Your task to perform on an android device: What's on my calendar tomorrow? Image 0: 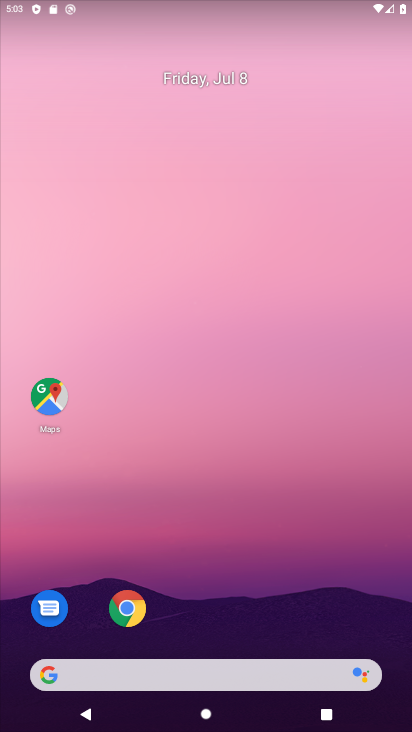
Step 0: drag from (275, 525) to (316, 178)
Your task to perform on an android device: What's on my calendar tomorrow? Image 1: 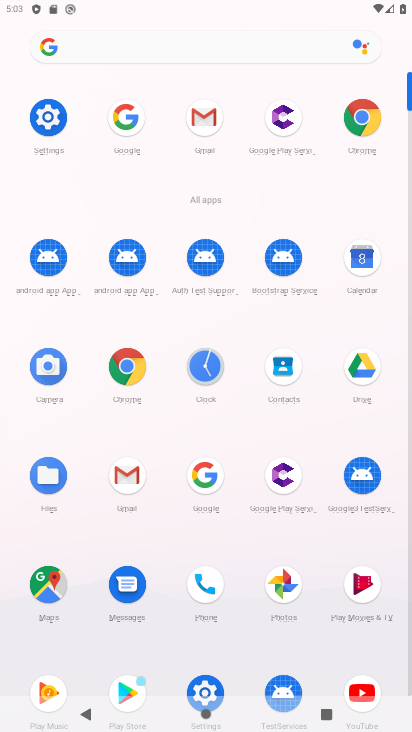
Step 1: click (362, 265)
Your task to perform on an android device: What's on my calendar tomorrow? Image 2: 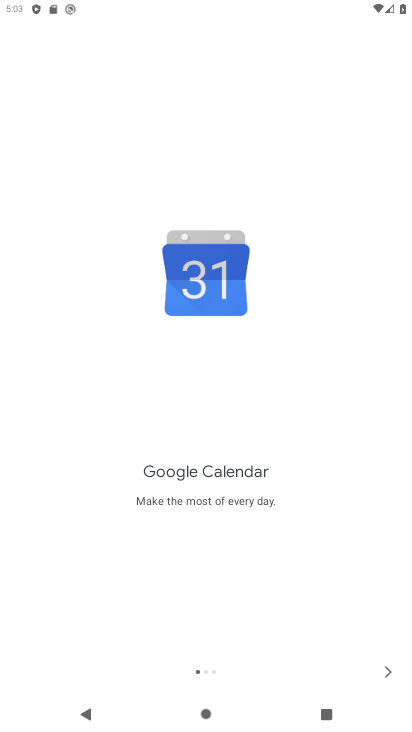
Step 2: click (393, 671)
Your task to perform on an android device: What's on my calendar tomorrow? Image 3: 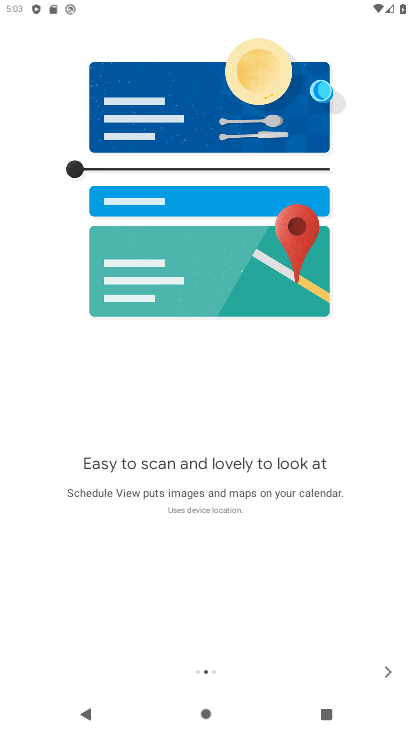
Step 3: click (393, 671)
Your task to perform on an android device: What's on my calendar tomorrow? Image 4: 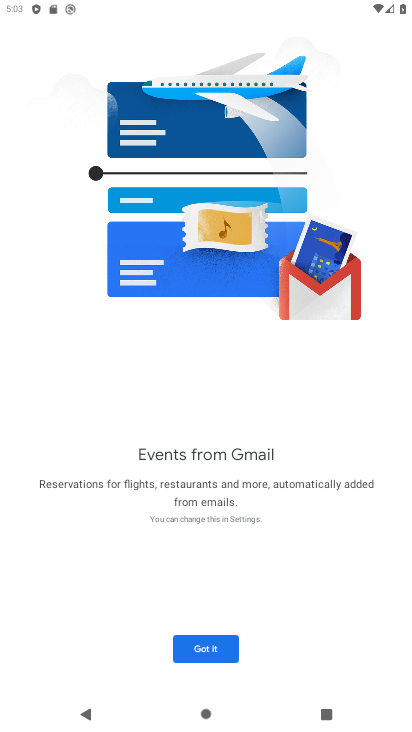
Step 4: click (213, 656)
Your task to perform on an android device: What's on my calendar tomorrow? Image 5: 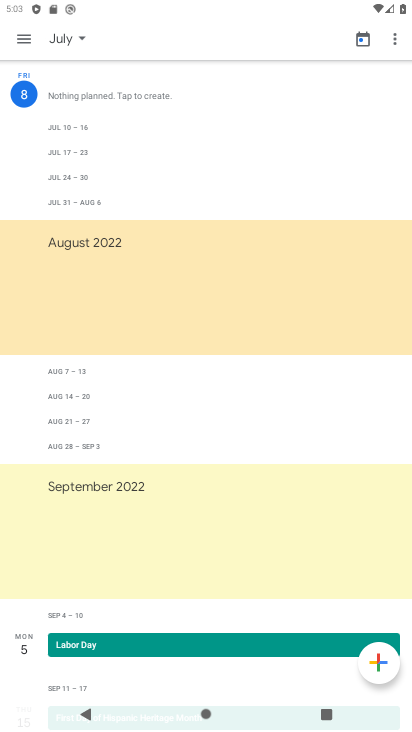
Step 5: click (83, 35)
Your task to perform on an android device: What's on my calendar tomorrow? Image 6: 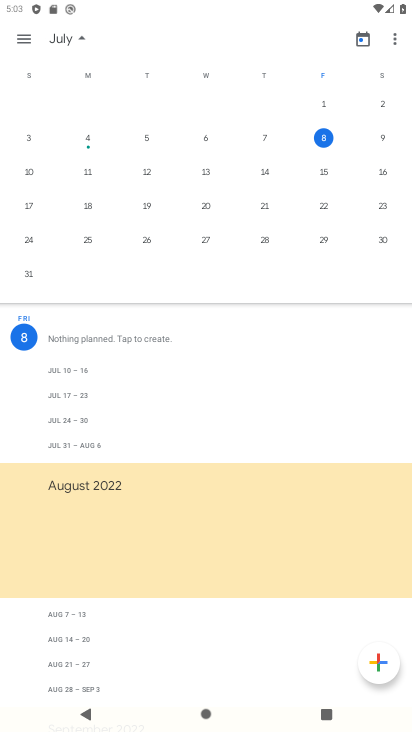
Step 6: click (385, 139)
Your task to perform on an android device: What's on my calendar tomorrow? Image 7: 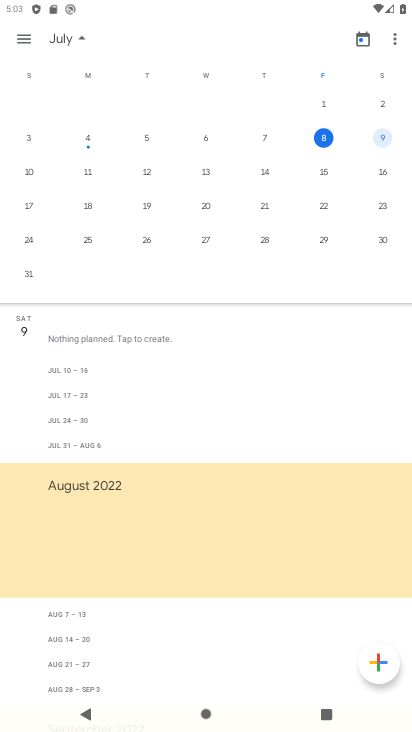
Step 7: task complete